Your task to perform on an android device: toggle pop-ups in chrome Image 0: 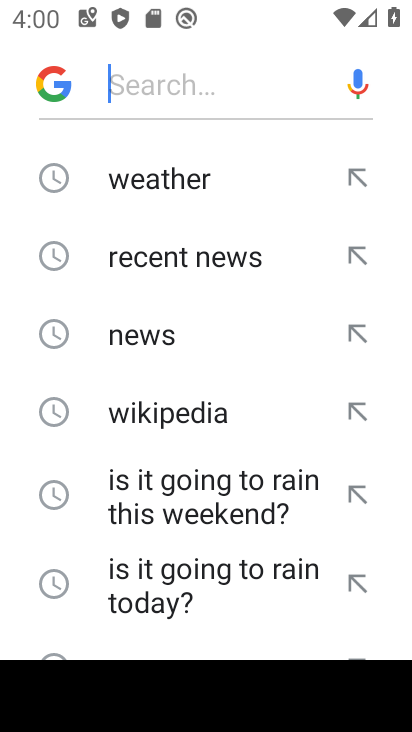
Step 0: press home button
Your task to perform on an android device: toggle pop-ups in chrome Image 1: 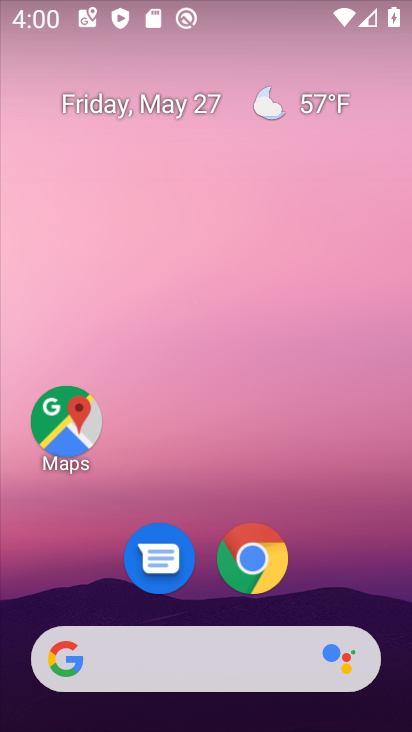
Step 1: task complete